Your task to perform on an android device: Search for a coffee table on IKEA Image 0: 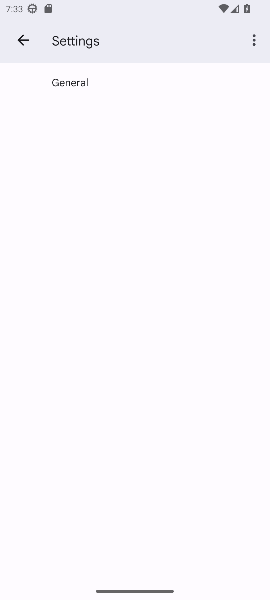
Step 0: press home button
Your task to perform on an android device: Search for a coffee table on IKEA Image 1: 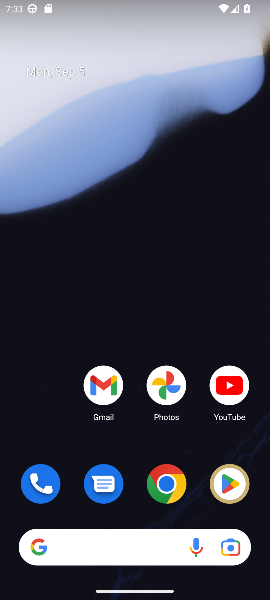
Step 1: press home button
Your task to perform on an android device: Search for a coffee table on IKEA Image 2: 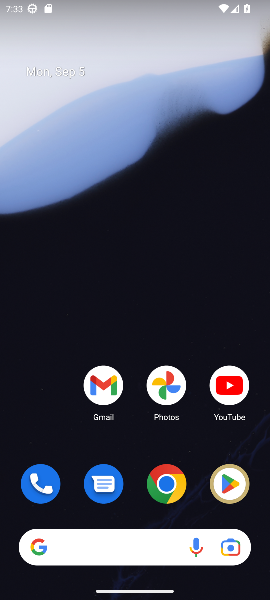
Step 2: drag from (122, 475) to (109, 23)
Your task to perform on an android device: Search for a coffee table on IKEA Image 3: 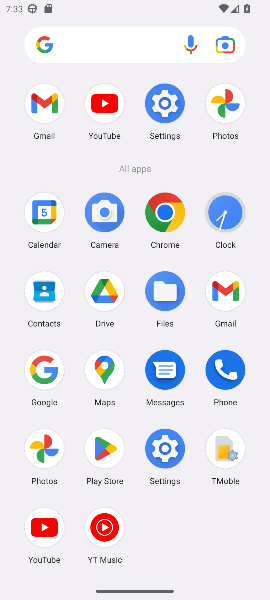
Step 3: click (175, 210)
Your task to perform on an android device: Search for a coffee table on IKEA Image 4: 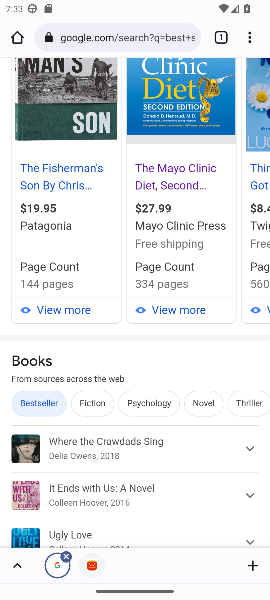
Step 4: click (166, 500)
Your task to perform on an android device: Search for a coffee table on IKEA Image 5: 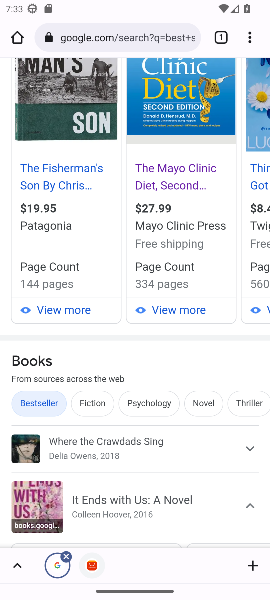
Step 5: click (177, 471)
Your task to perform on an android device: Search for a coffee table on IKEA Image 6: 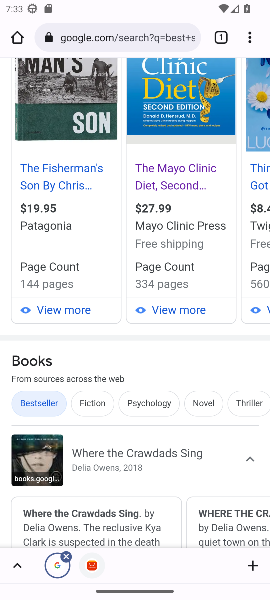
Step 6: click (90, 53)
Your task to perform on an android device: Search for a coffee table on IKEA Image 7: 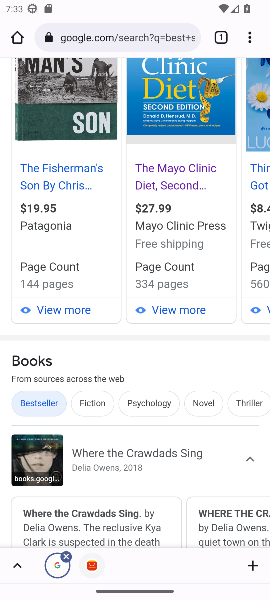
Step 7: click (88, 38)
Your task to perform on an android device: Search for a coffee table on IKEA Image 8: 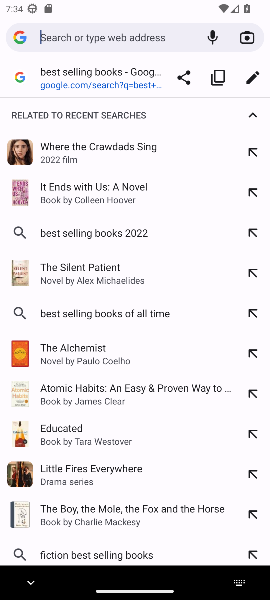
Step 8: type "IKEA"
Your task to perform on an android device: Search for a coffee table on IKEA Image 9: 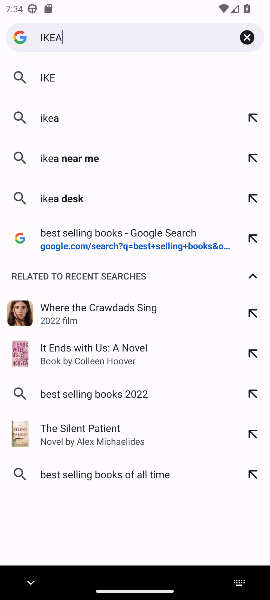
Step 9: press enter
Your task to perform on an android device: Search for a coffee table on IKEA Image 10: 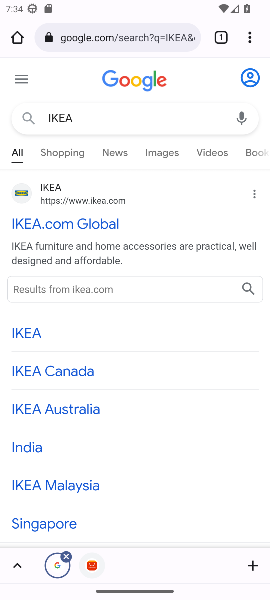
Step 10: click (21, 229)
Your task to perform on an android device: Search for a coffee table on IKEA Image 11: 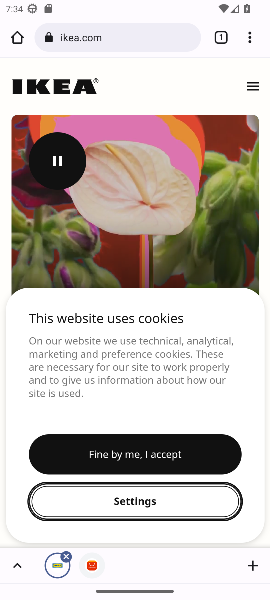
Step 11: click (180, 454)
Your task to perform on an android device: Search for a coffee table on IKEA Image 12: 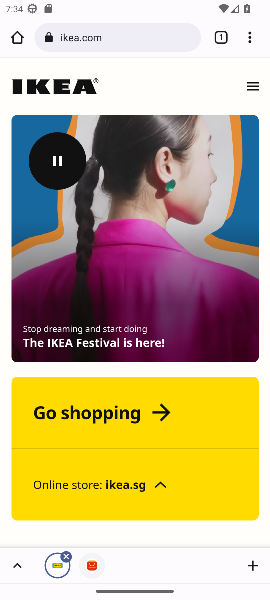
Step 12: click (152, 429)
Your task to perform on an android device: Search for a coffee table on IKEA Image 13: 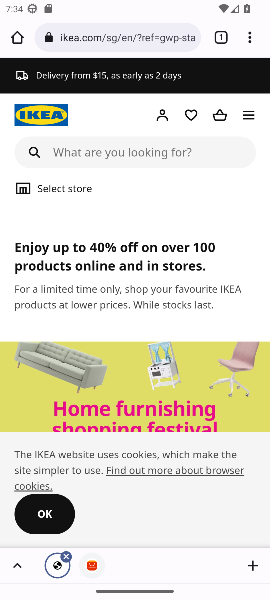
Step 13: click (110, 150)
Your task to perform on an android device: Search for a coffee table on IKEA Image 14: 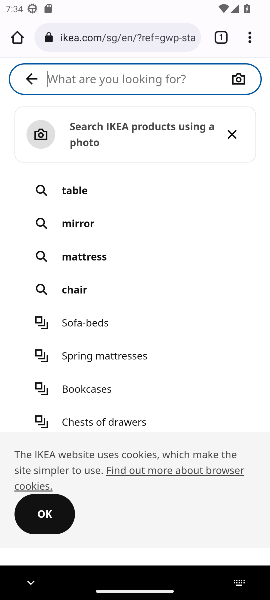
Step 14: type " coffee table "
Your task to perform on an android device: Search for a coffee table on IKEA Image 15: 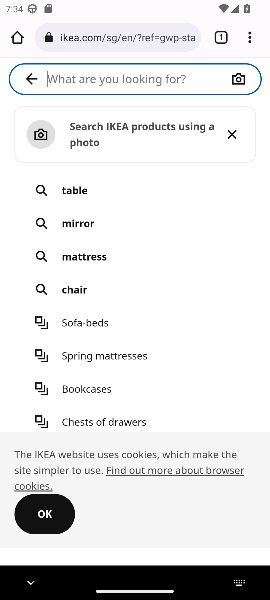
Step 15: press enter
Your task to perform on an android device: Search for a coffee table on IKEA Image 16: 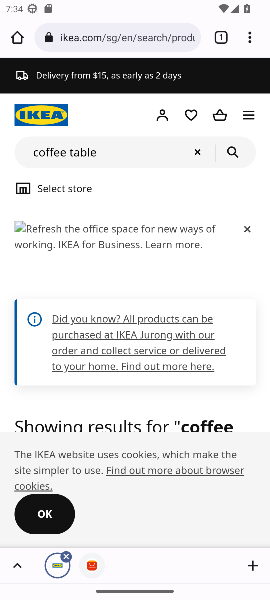
Step 16: drag from (173, 413) to (191, 217)
Your task to perform on an android device: Search for a coffee table on IKEA Image 17: 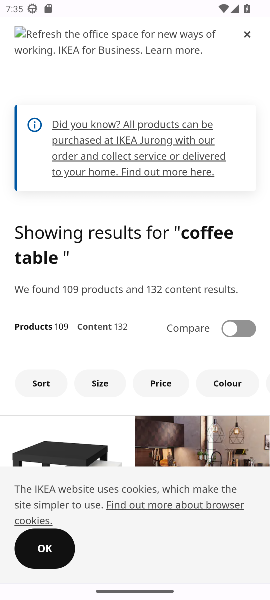
Step 17: drag from (186, 409) to (181, 199)
Your task to perform on an android device: Search for a coffee table on IKEA Image 18: 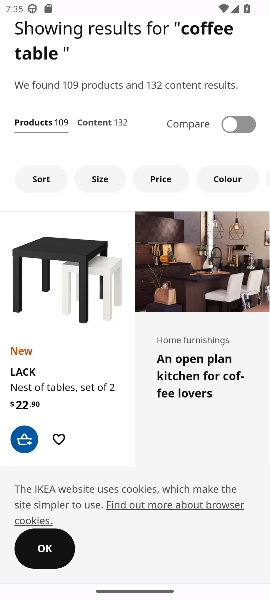
Step 18: drag from (183, 311) to (189, 222)
Your task to perform on an android device: Search for a coffee table on IKEA Image 19: 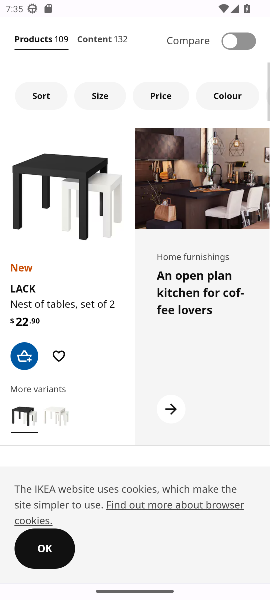
Step 19: click (216, 176)
Your task to perform on an android device: Search for a coffee table on IKEA Image 20: 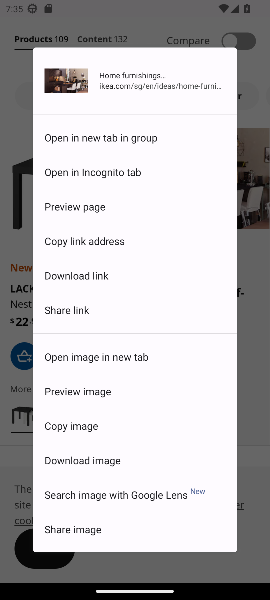
Step 20: click (252, 326)
Your task to perform on an android device: Search for a coffee table on IKEA Image 21: 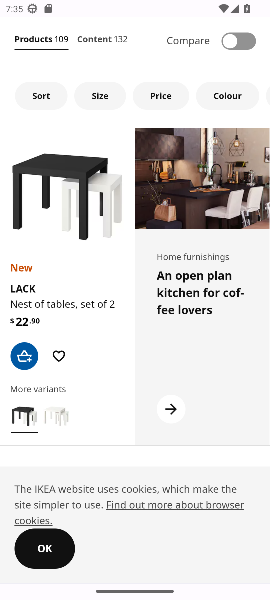
Step 21: task complete